Your task to perform on an android device: change alarm snooze length Image 0: 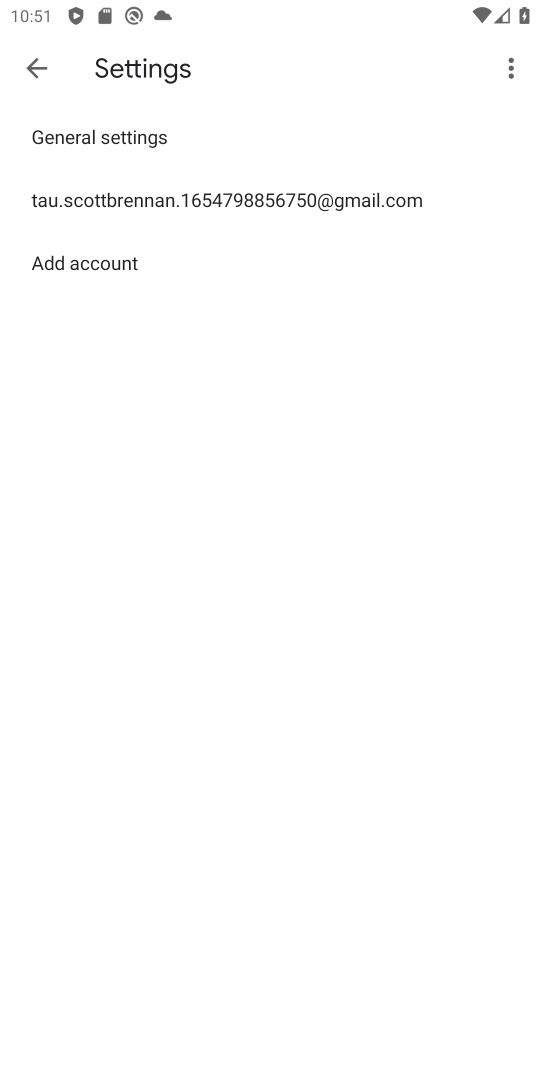
Step 0: press home button
Your task to perform on an android device: change alarm snooze length Image 1: 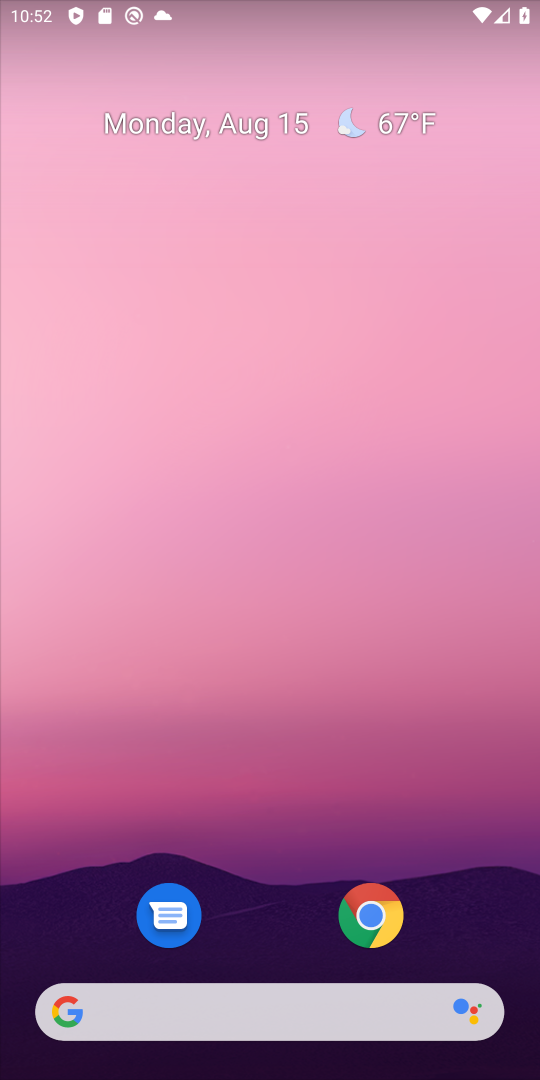
Step 1: drag from (285, 859) to (273, 9)
Your task to perform on an android device: change alarm snooze length Image 2: 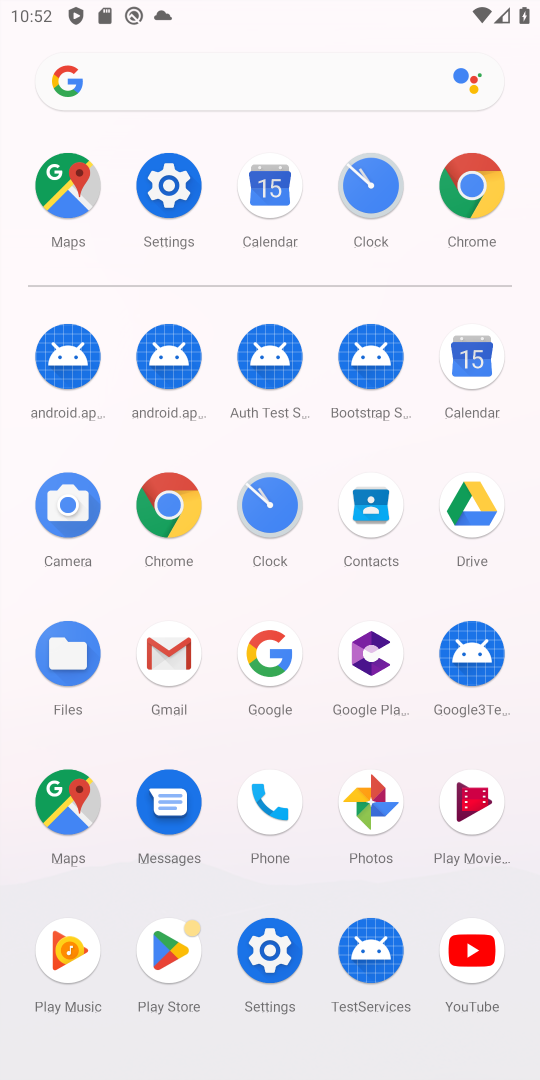
Step 2: click (380, 242)
Your task to perform on an android device: change alarm snooze length Image 3: 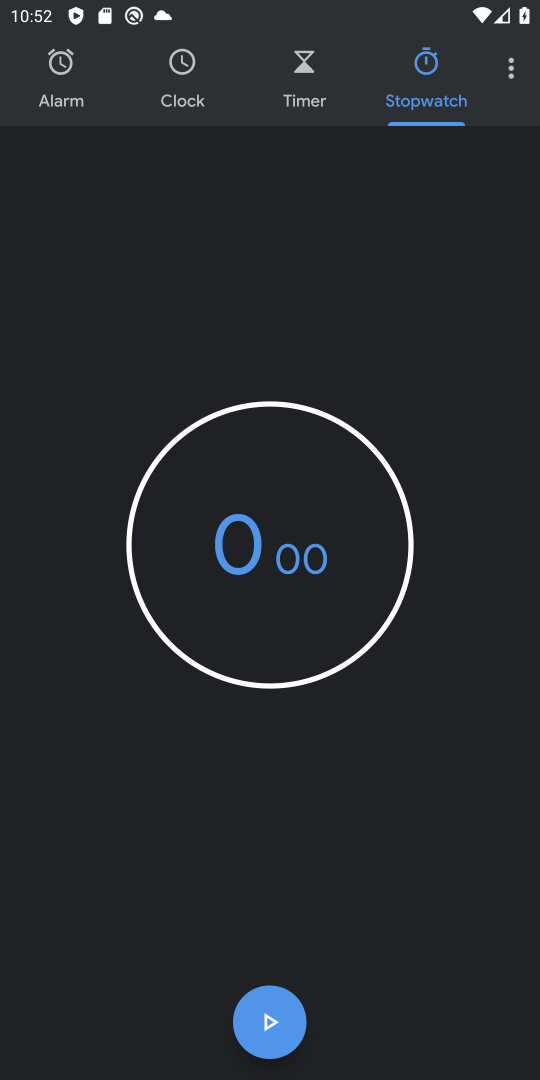
Step 3: click (507, 74)
Your task to perform on an android device: change alarm snooze length Image 4: 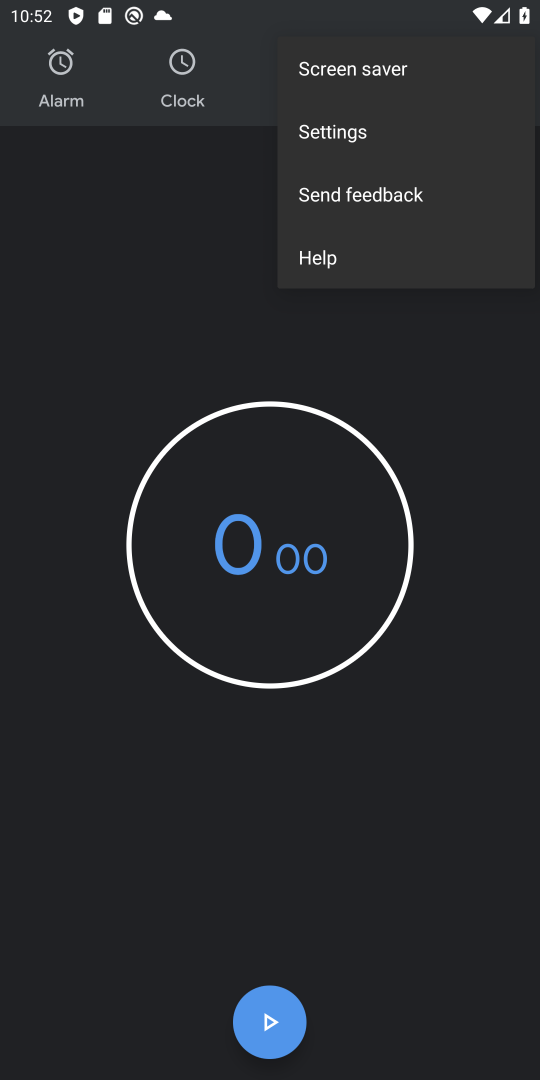
Step 4: click (342, 124)
Your task to perform on an android device: change alarm snooze length Image 5: 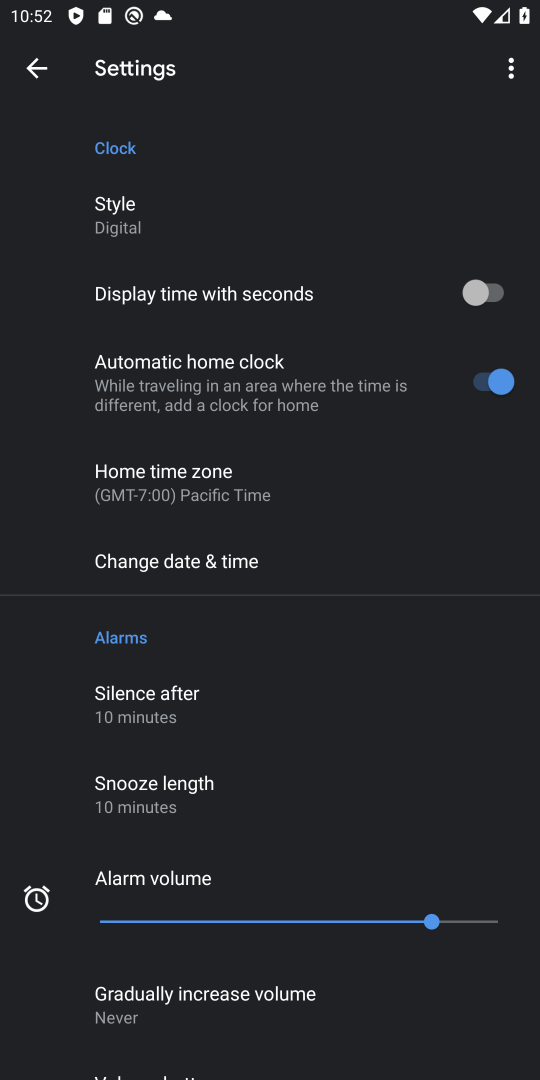
Step 5: drag from (224, 633) to (140, 303)
Your task to perform on an android device: change alarm snooze length Image 6: 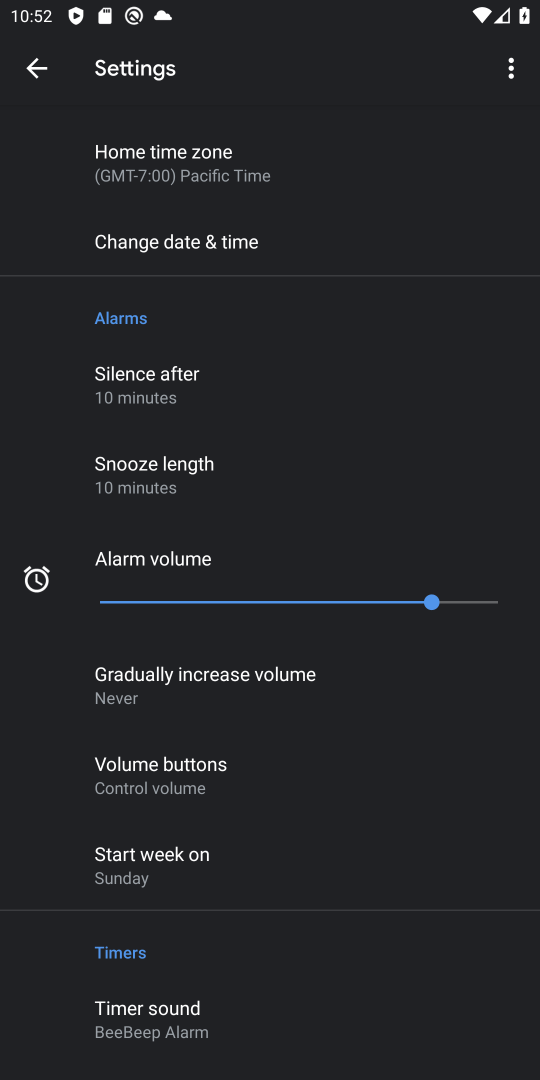
Step 6: click (233, 473)
Your task to perform on an android device: change alarm snooze length Image 7: 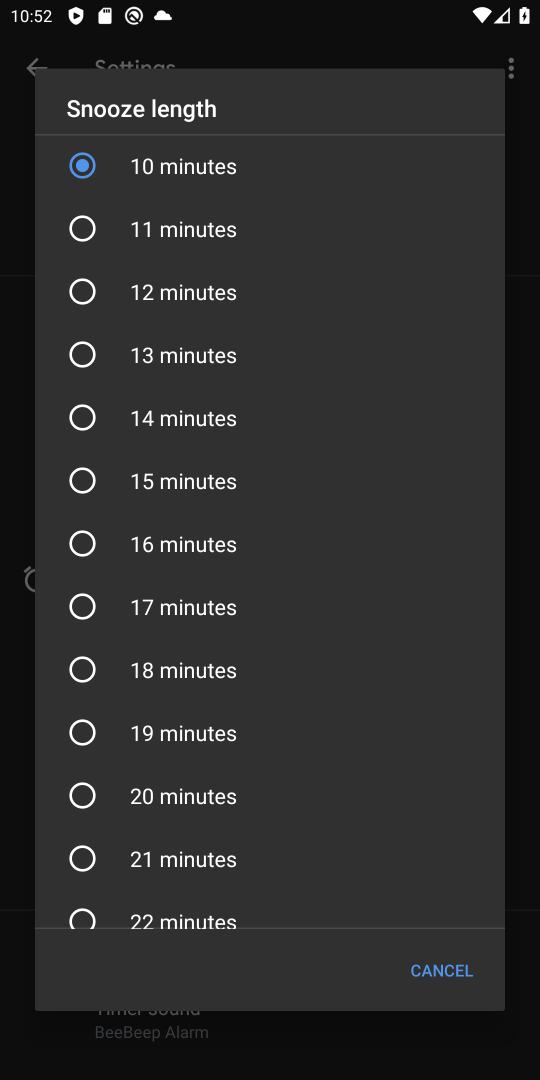
Step 7: click (80, 361)
Your task to perform on an android device: change alarm snooze length Image 8: 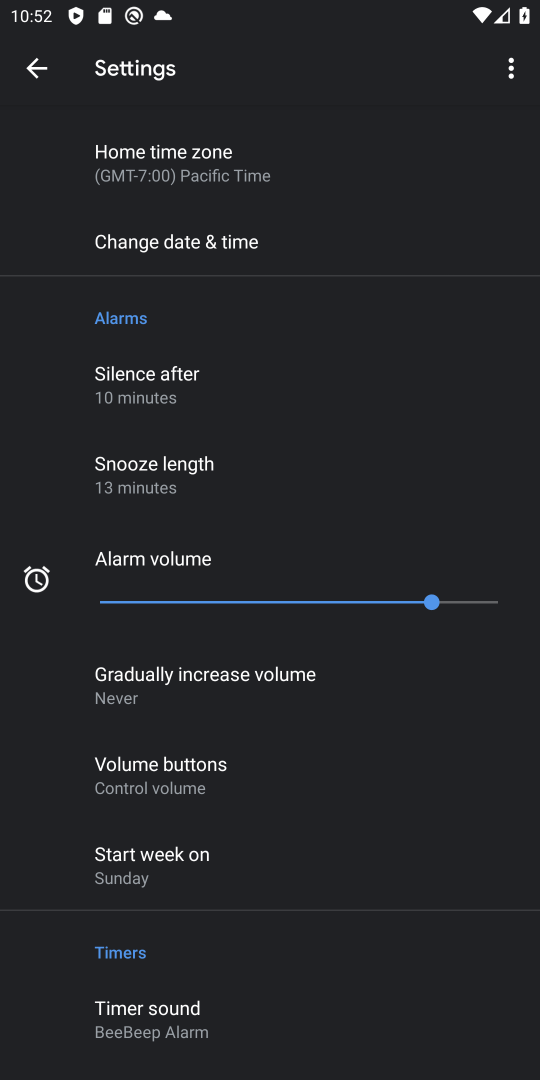
Step 8: task complete